Your task to perform on an android device: Open calendar and show me the first week of next month Image 0: 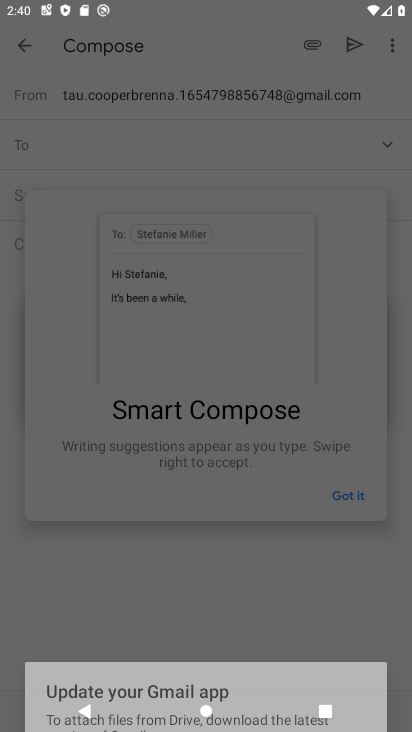
Step 0: press home button
Your task to perform on an android device: Open calendar and show me the first week of next month Image 1: 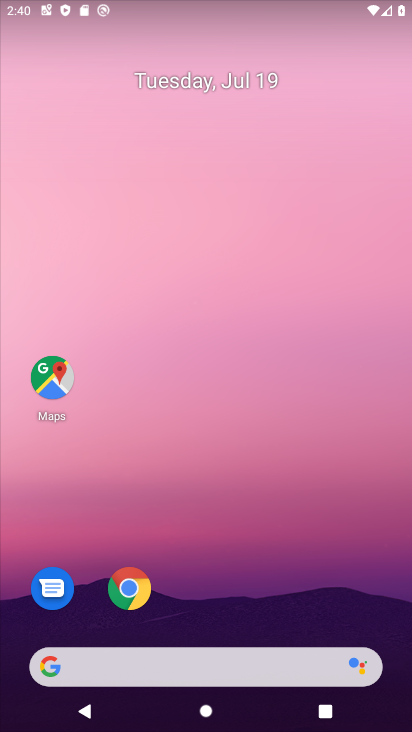
Step 1: drag from (195, 613) to (256, 28)
Your task to perform on an android device: Open calendar and show me the first week of next month Image 2: 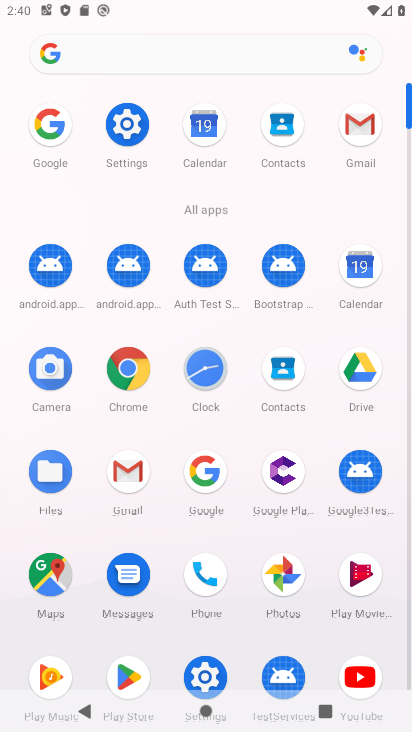
Step 2: click (372, 282)
Your task to perform on an android device: Open calendar and show me the first week of next month Image 3: 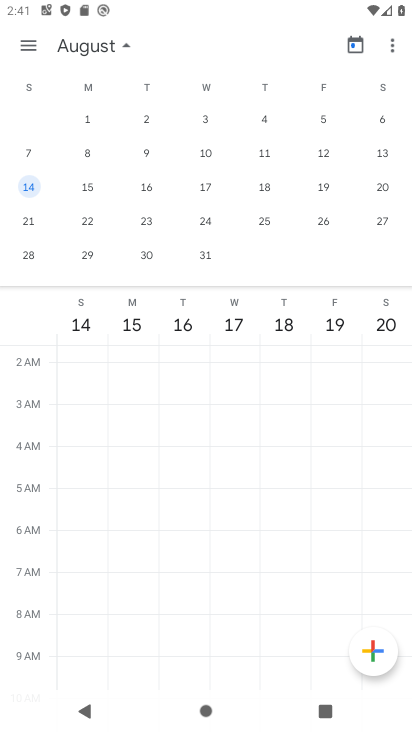
Step 3: click (87, 123)
Your task to perform on an android device: Open calendar and show me the first week of next month Image 4: 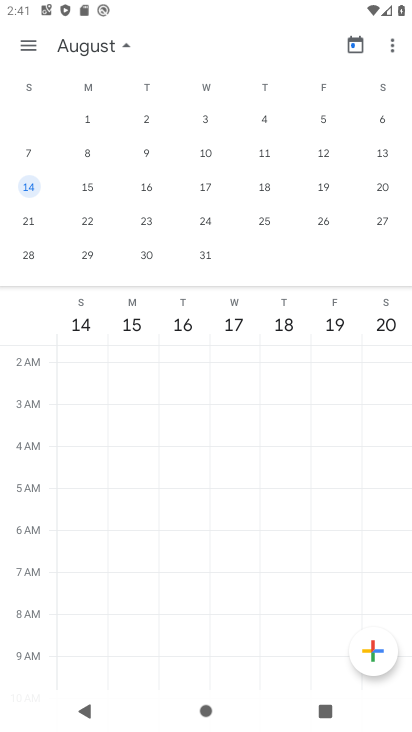
Step 4: click (87, 123)
Your task to perform on an android device: Open calendar and show me the first week of next month Image 5: 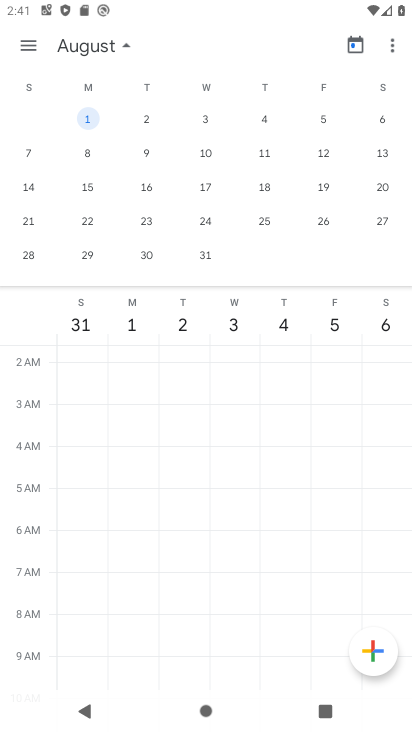
Step 5: task complete